Your task to perform on an android device: What's the latest news in space? Image 0: 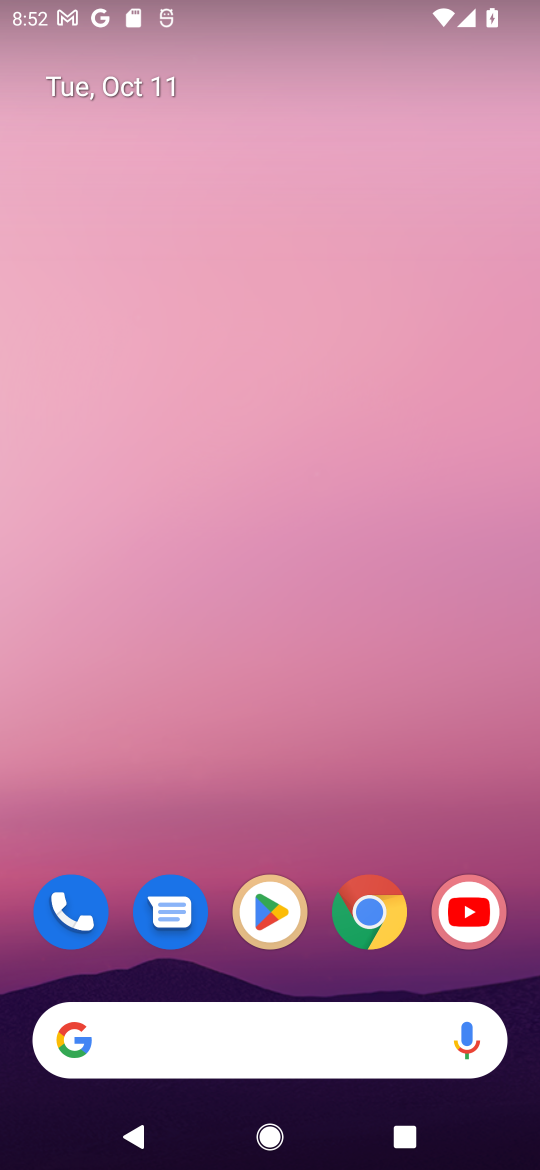
Step 0: click (362, 907)
Your task to perform on an android device: What's the latest news in space? Image 1: 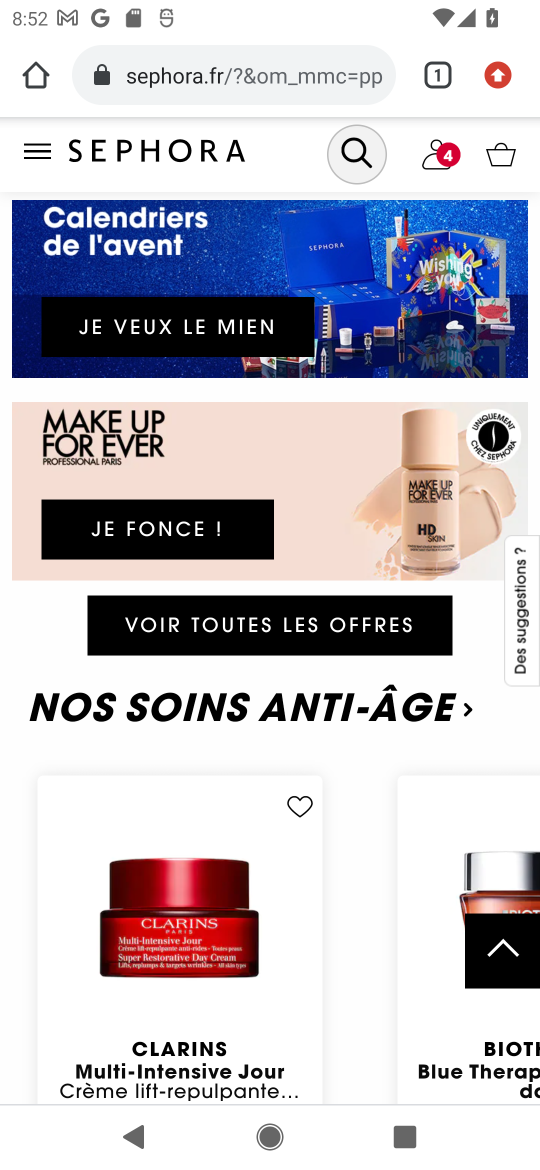
Step 1: click (242, 52)
Your task to perform on an android device: What's the latest news in space? Image 2: 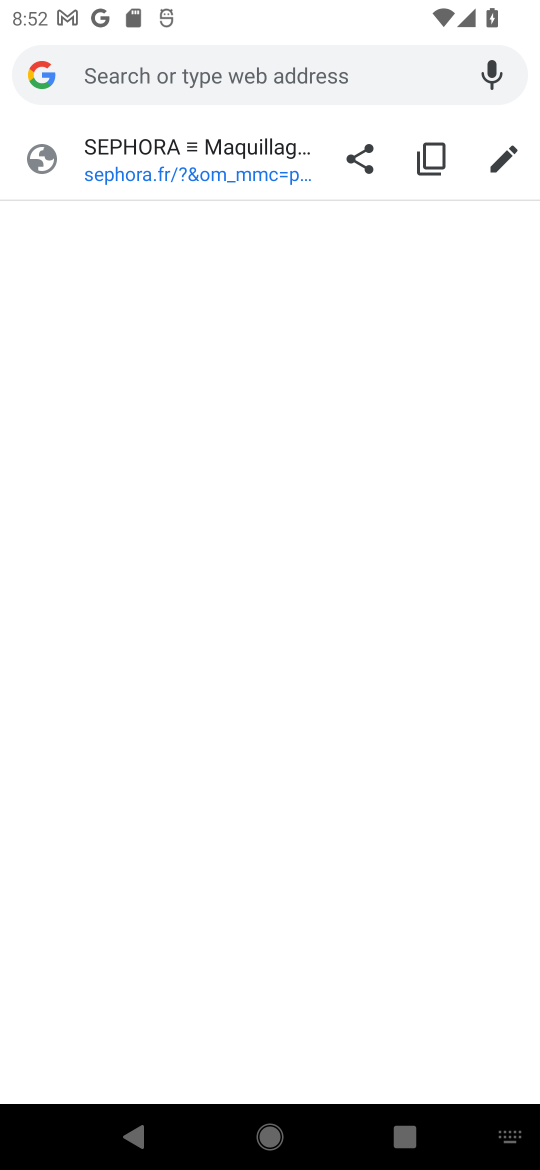
Step 2: type "news in space?"
Your task to perform on an android device: What's the latest news in space? Image 3: 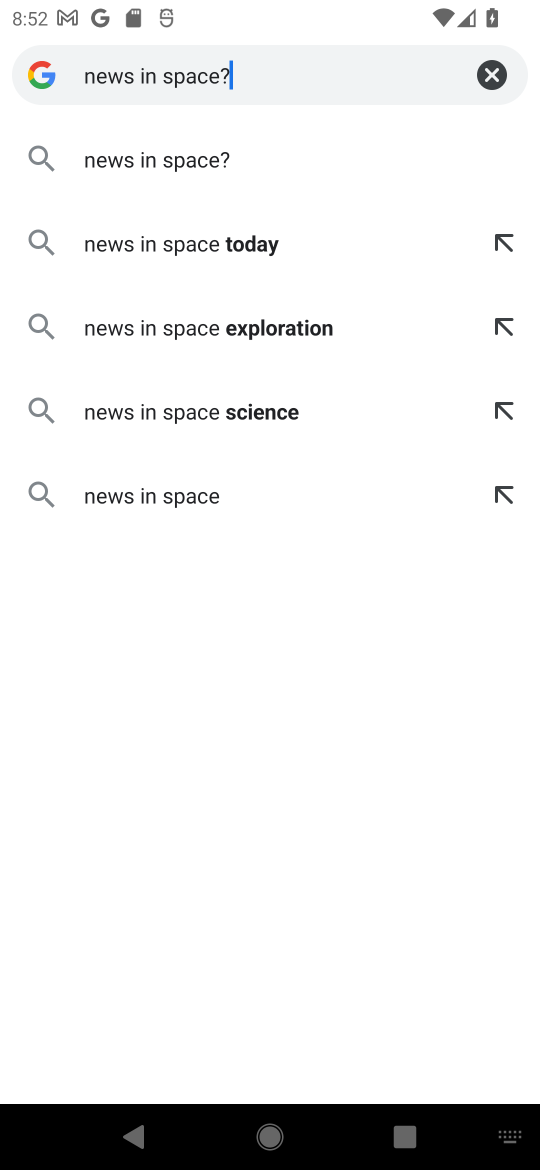
Step 3: click (190, 154)
Your task to perform on an android device: What's the latest news in space? Image 4: 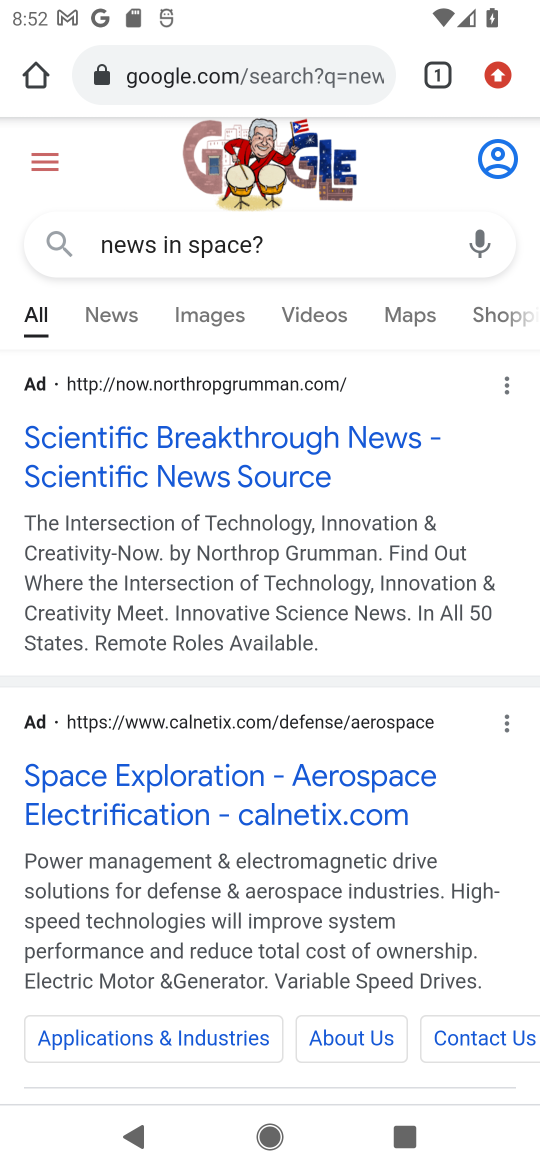
Step 4: click (102, 784)
Your task to perform on an android device: What's the latest news in space? Image 5: 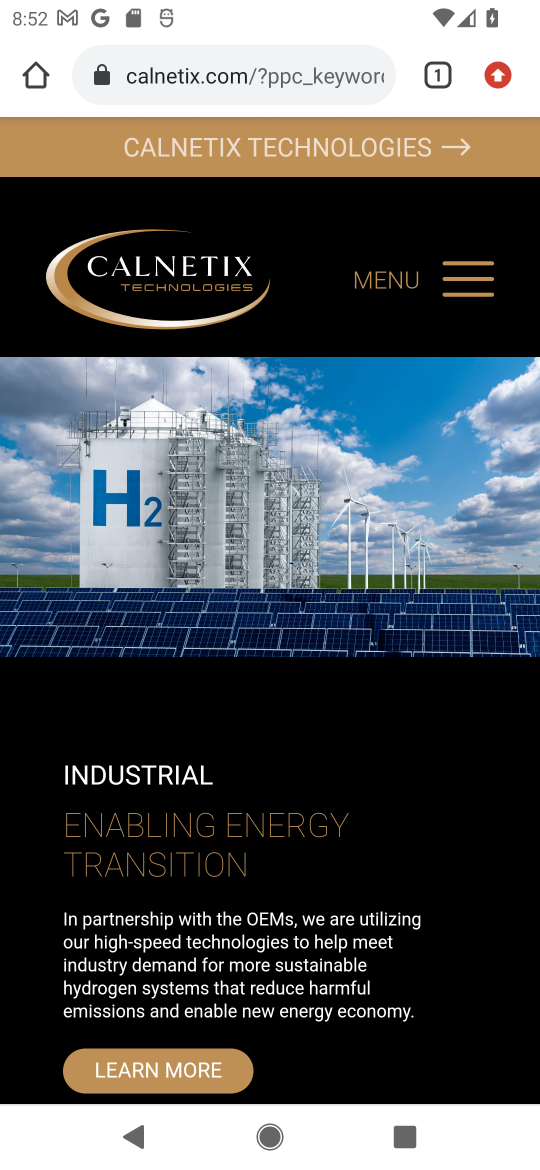
Step 5: task complete